Your task to perform on an android device: Open the stopwatch Image 0: 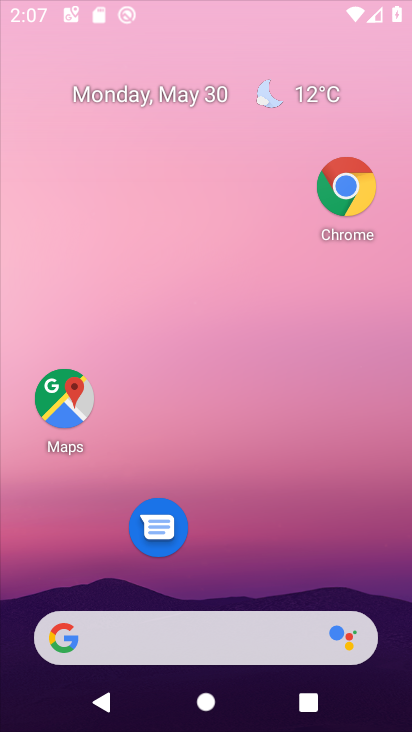
Step 0: click (319, 66)
Your task to perform on an android device: Open the stopwatch Image 1: 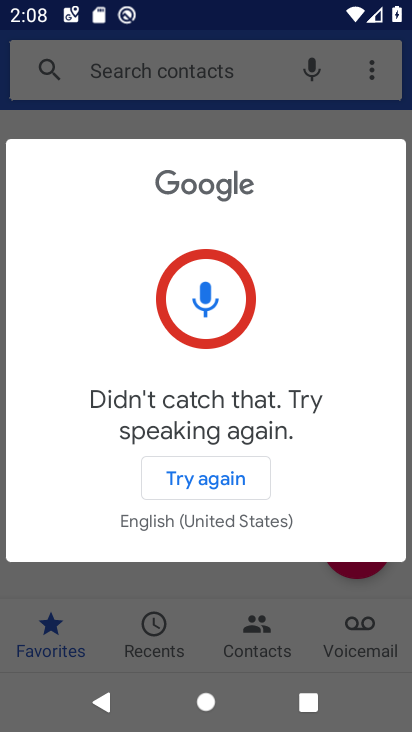
Step 1: press home button
Your task to perform on an android device: Open the stopwatch Image 2: 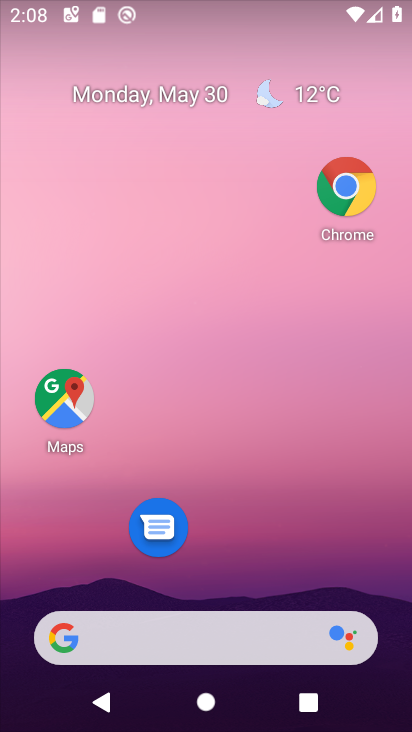
Step 2: drag from (280, 551) to (327, 203)
Your task to perform on an android device: Open the stopwatch Image 3: 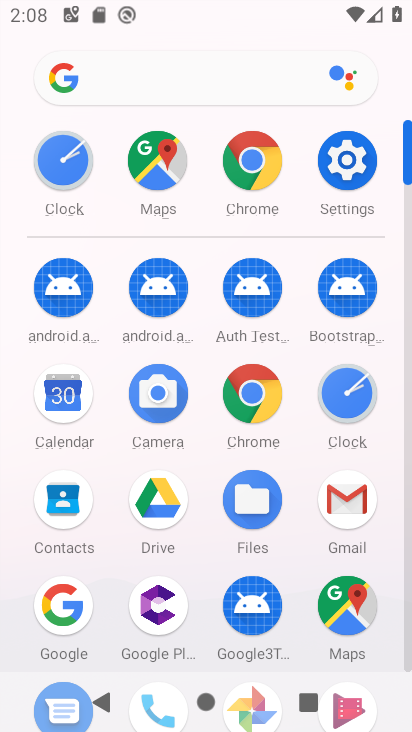
Step 3: click (347, 398)
Your task to perform on an android device: Open the stopwatch Image 4: 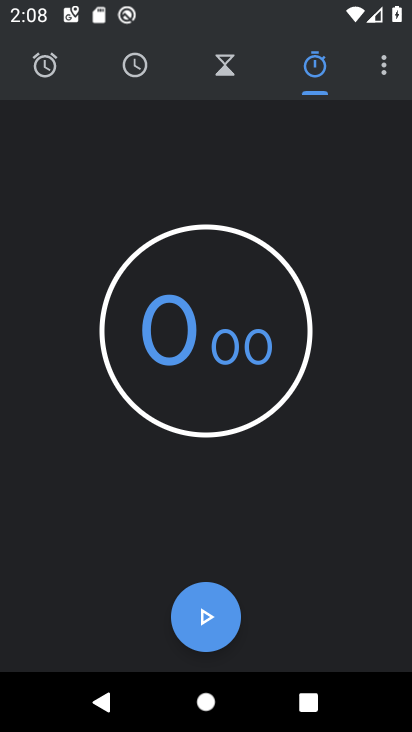
Step 4: click (203, 596)
Your task to perform on an android device: Open the stopwatch Image 5: 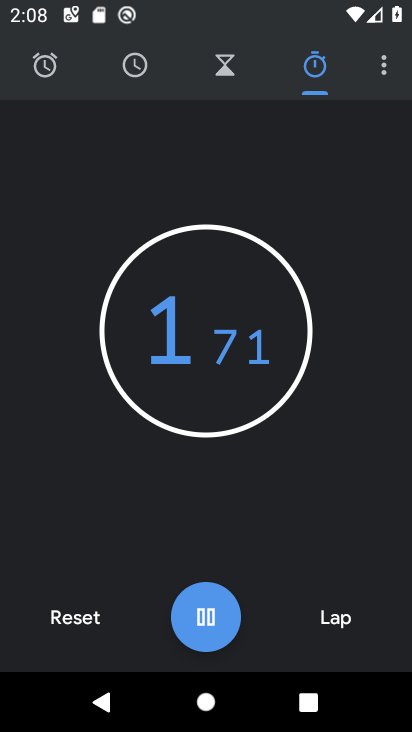
Step 5: task complete